Your task to perform on an android device: Search for hotels in Atlanta Image 0: 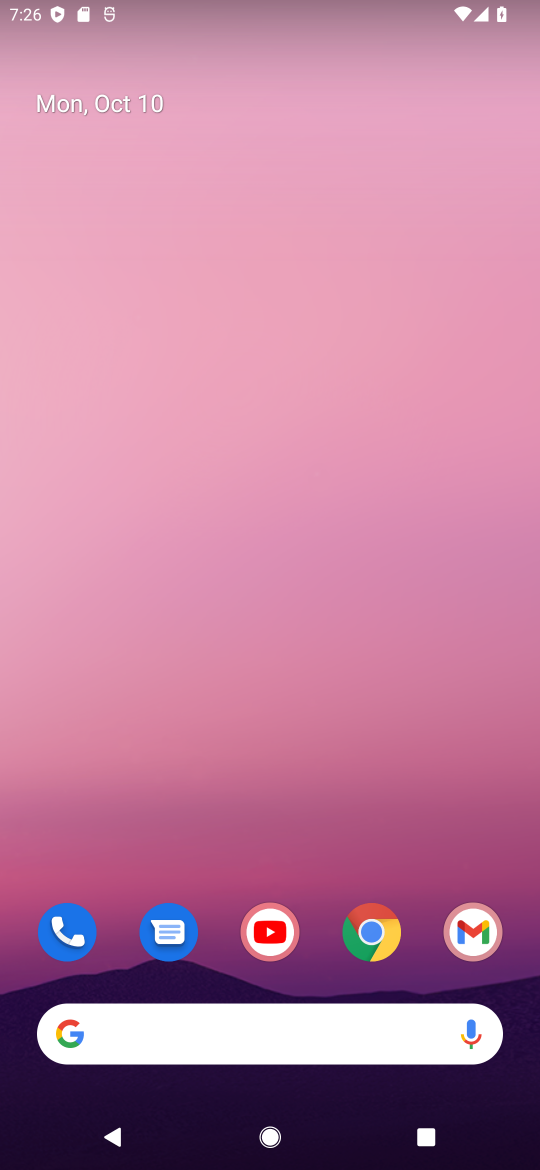
Step 0: drag from (309, 974) to (315, 288)
Your task to perform on an android device: Search for hotels in Atlanta Image 1: 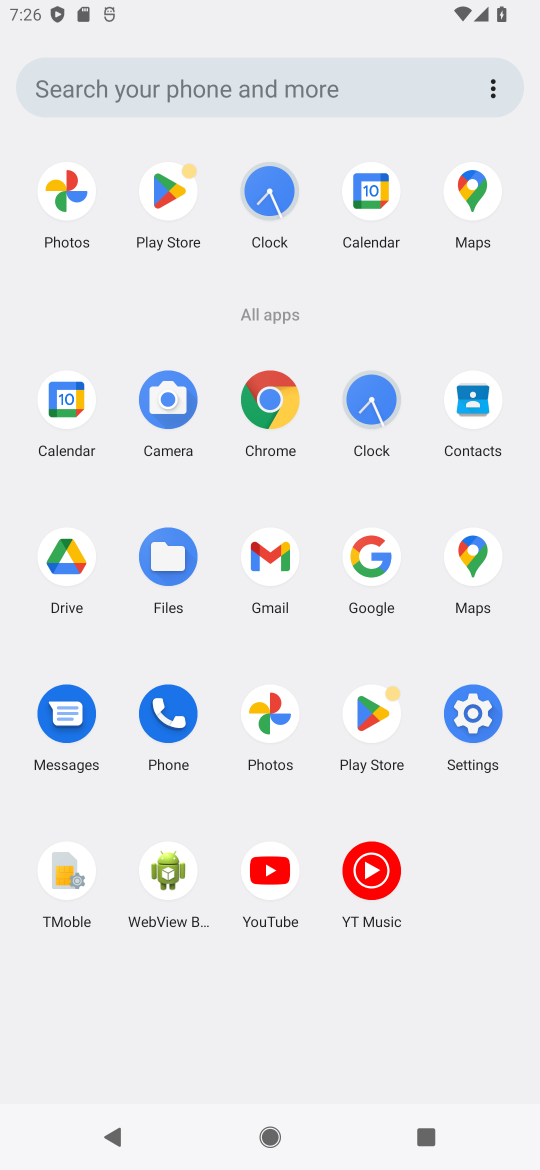
Step 1: click (269, 396)
Your task to perform on an android device: Search for hotels in Atlanta Image 2: 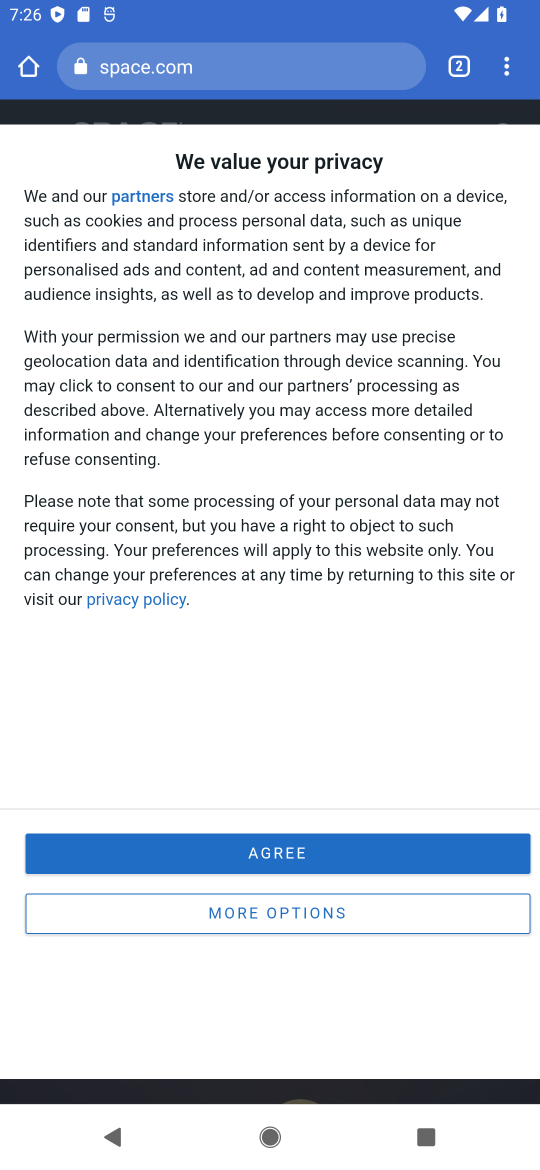
Step 2: click (308, 54)
Your task to perform on an android device: Search for hotels in Atlanta Image 3: 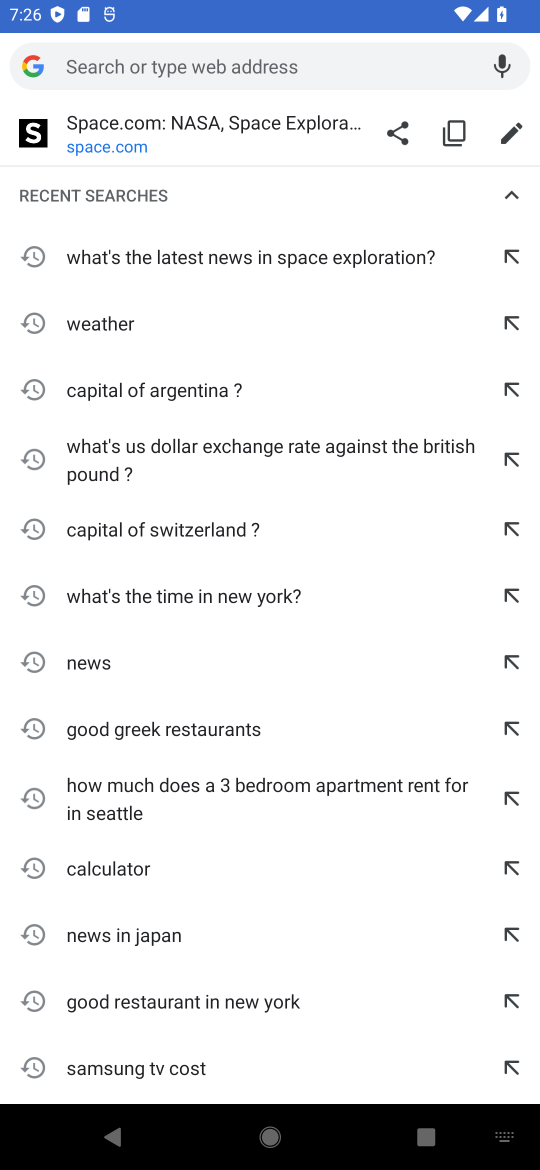
Step 3: type "hotels in Atlanta"
Your task to perform on an android device: Search for hotels in Atlanta Image 4: 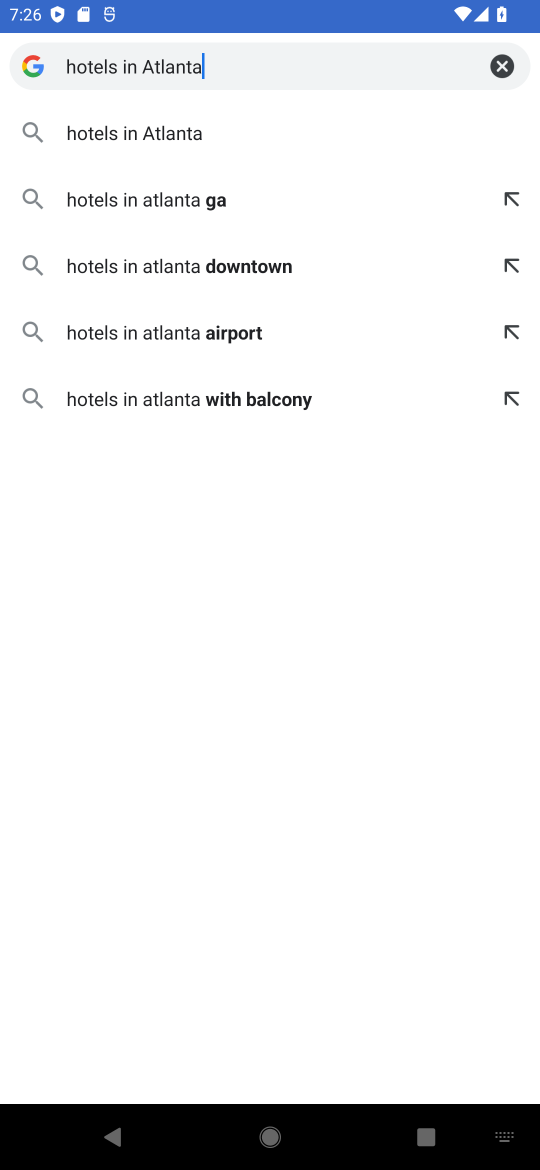
Step 4: press enter
Your task to perform on an android device: Search for hotels in Atlanta Image 5: 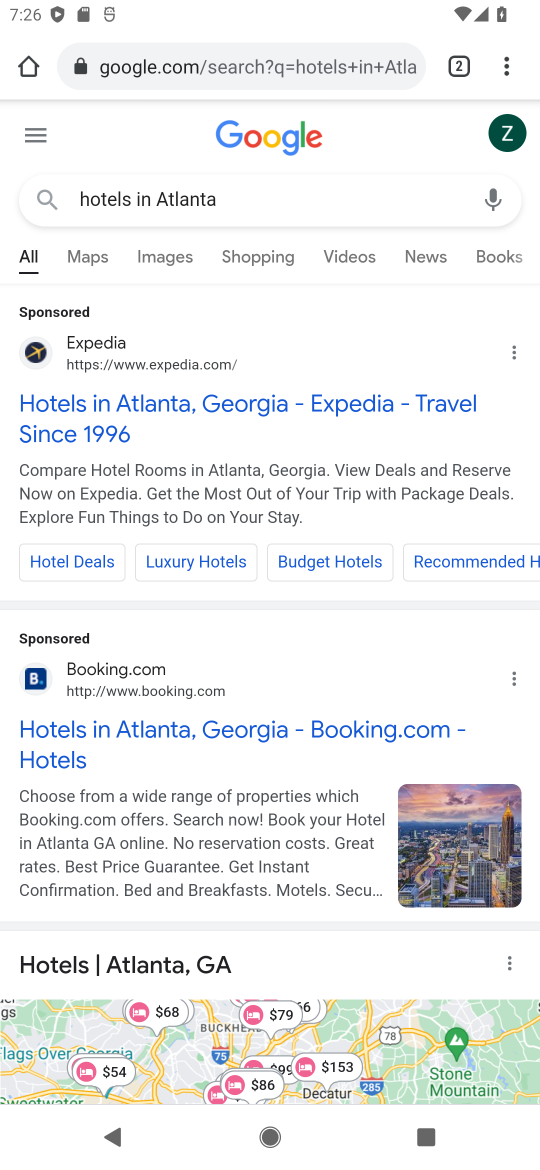
Step 5: click (102, 399)
Your task to perform on an android device: Search for hotels in Atlanta Image 6: 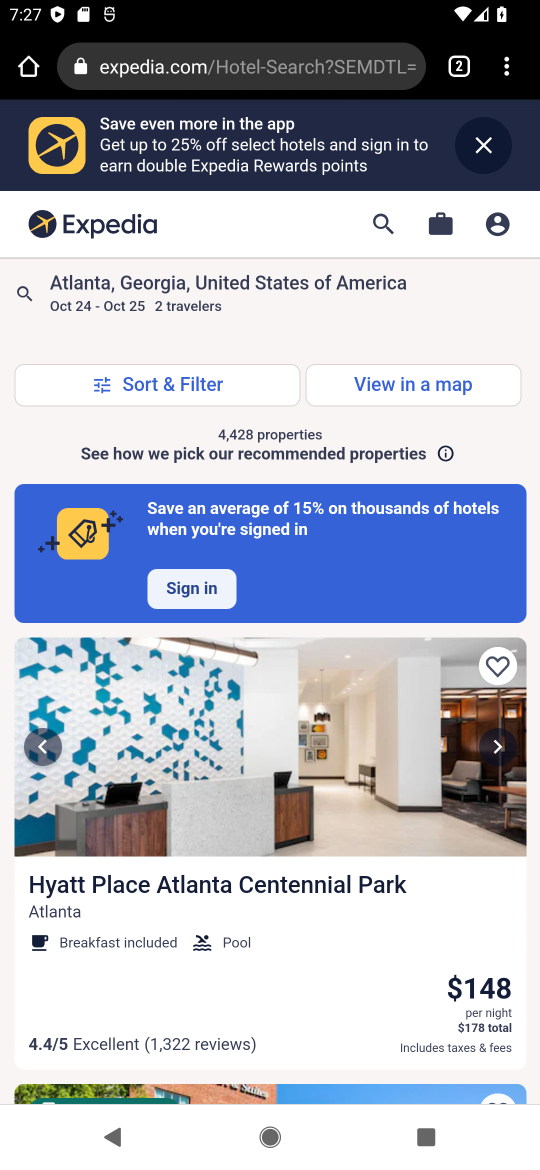
Step 6: task complete